Your task to perform on an android device: set the stopwatch Image 0: 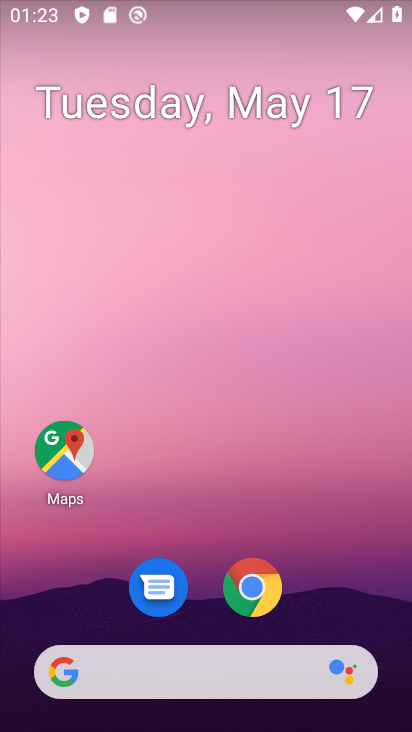
Step 0: drag from (384, 552) to (386, 155)
Your task to perform on an android device: set the stopwatch Image 1: 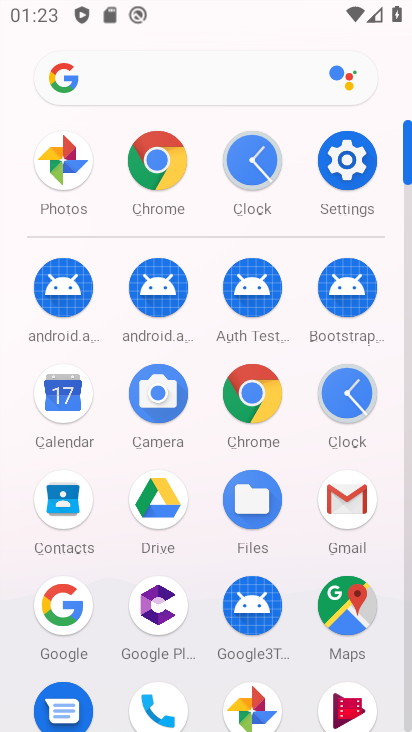
Step 1: click (342, 400)
Your task to perform on an android device: set the stopwatch Image 2: 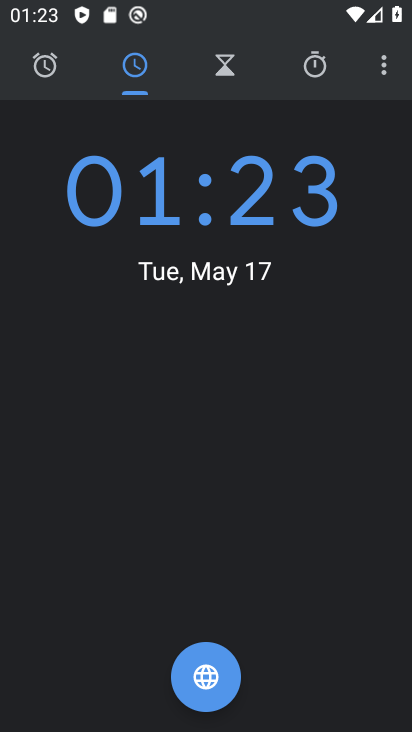
Step 2: click (324, 73)
Your task to perform on an android device: set the stopwatch Image 3: 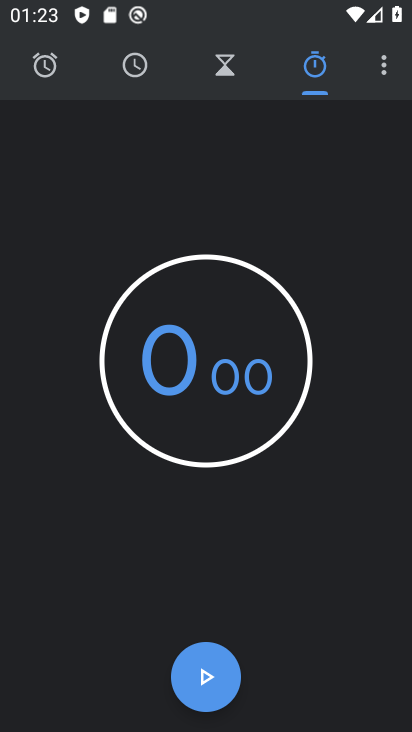
Step 3: click (222, 677)
Your task to perform on an android device: set the stopwatch Image 4: 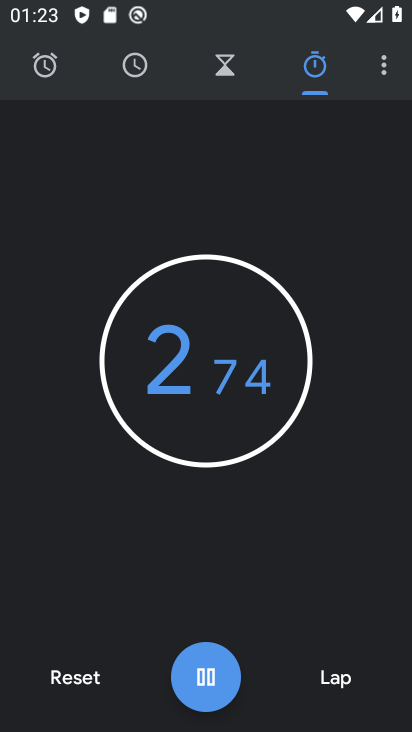
Step 4: click (224, 676)
Your task to perform on an android device: set the stopwatch Image 5: 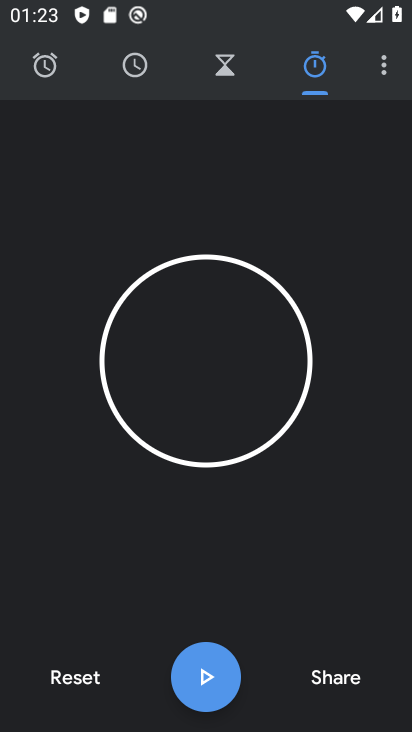
Step 5: task complete